Your task to perform on an android device: Open Google Maps Image 0: 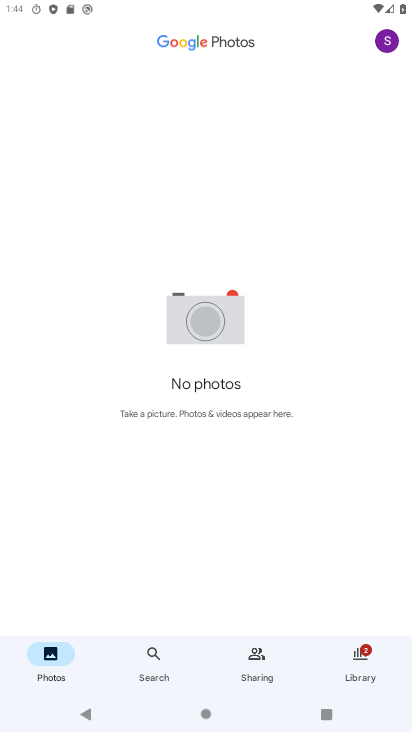
Step 0: drag from (195, 511) to (239, 298)
Your task to perform on an android device: Open Google Maps Image 1: 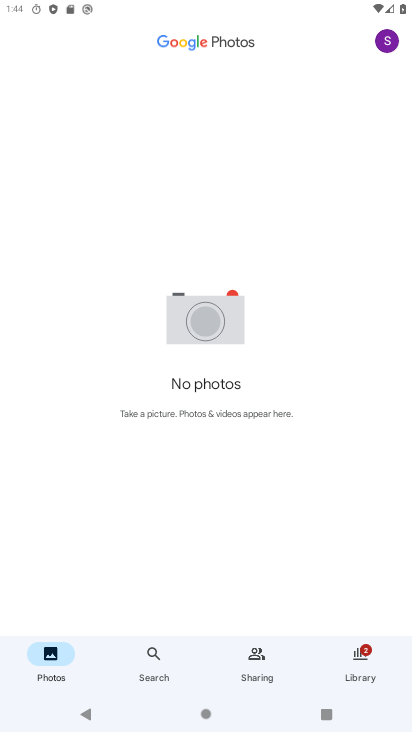
Step 1: press home button
Your task to perform on an android device: Open Google Maps Image 2: 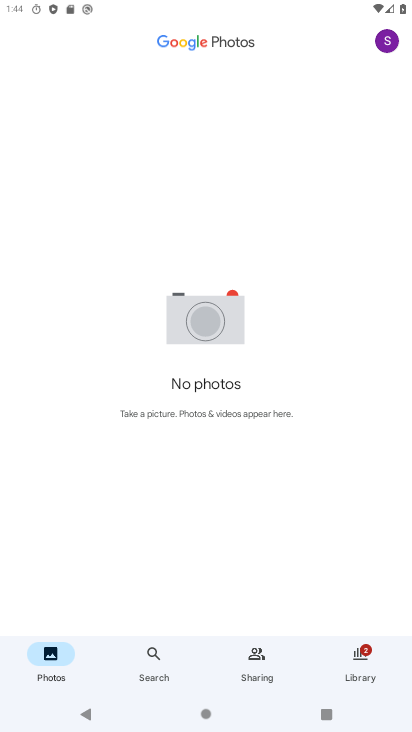
Step 2: drag from (309, 574) to (241, 229)
Your task to perform on an android device: Open Google Maps Image 3: 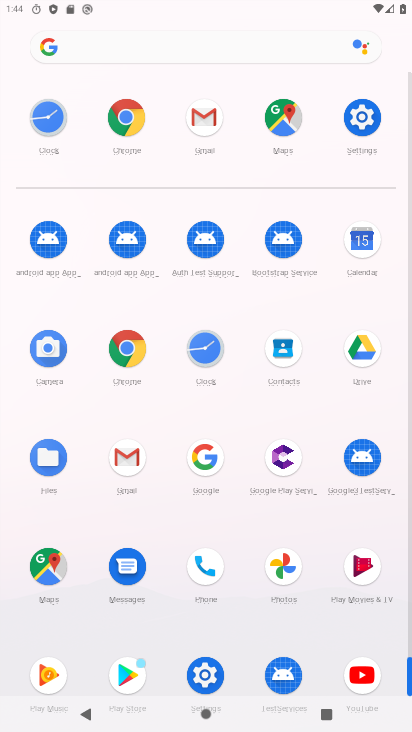
Step 3: click (45, 567)
Your task to perform on an android device: Open Google Maps Image 4: 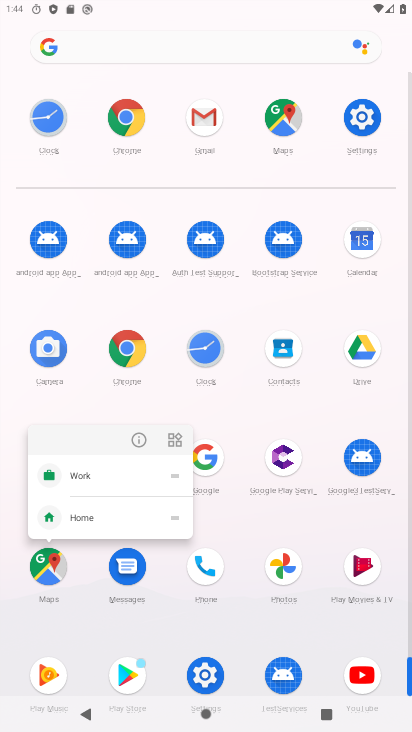
Step 4: click (141, 439)
Your task to perform on an android device: Open Google Maps Image 5: 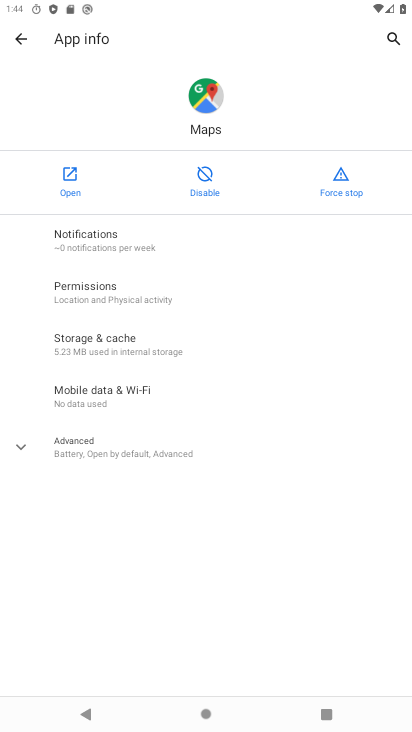
Step 5: click (71, 160)
Your task to perform on an android device: Open Google Maps Image 6: 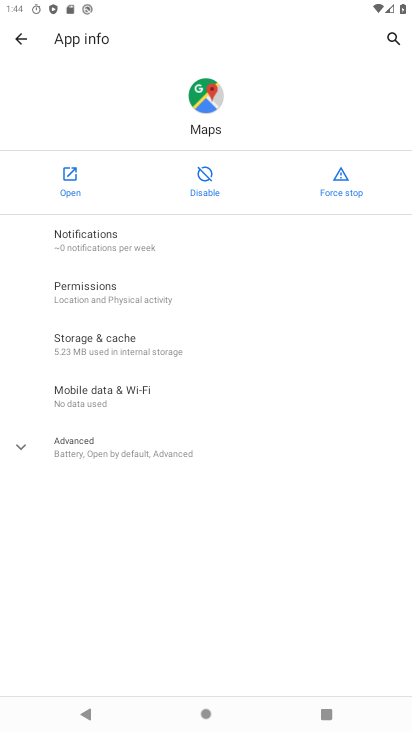
Step 6: click (71, 160)
Your task to perform on an android device: Open Google Maps Image 7: 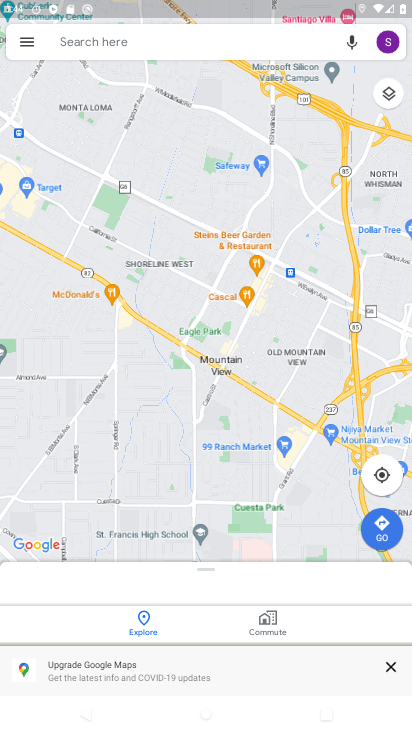
Step 7: task complete